Your task to perform on an android device: turn off notifications settings in the gmail app Image 0: 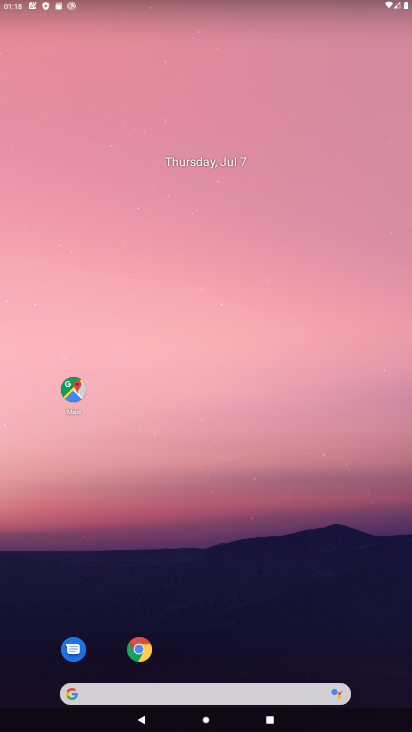
Step 0: drag from (290, 598) to (218, 44)
Your task to perform on an android device: turn off notifications settings in the gmail app Image 1: 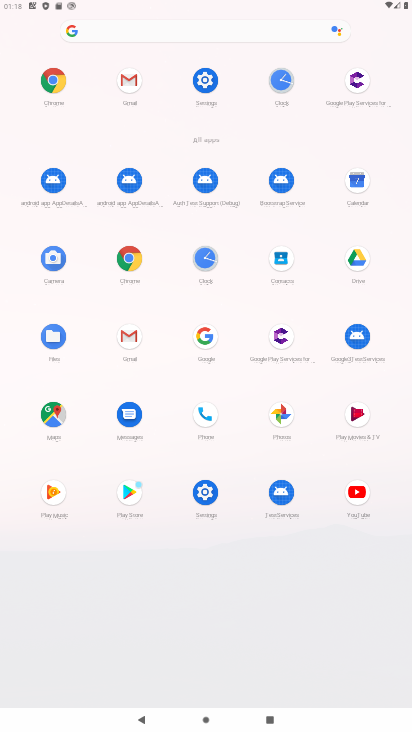
Step 1: click (127, 80)
Your task to perform on an android device: turn off notifications settings in the gmail app Image 2: 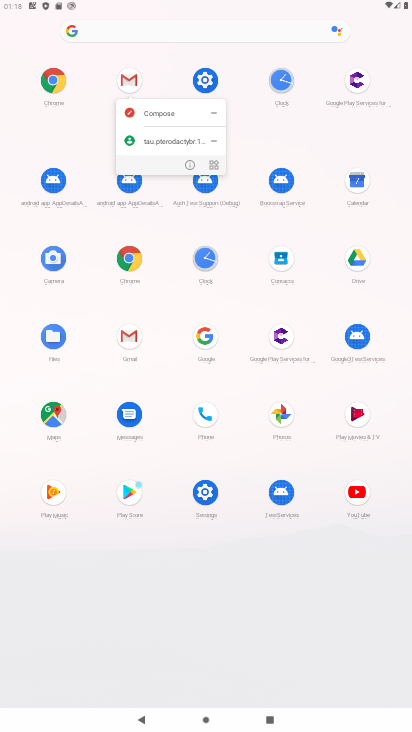
Step 2: click (188, 165)
Your task to perform on an android device: turn off notifications settings in the gmail app Image 3: 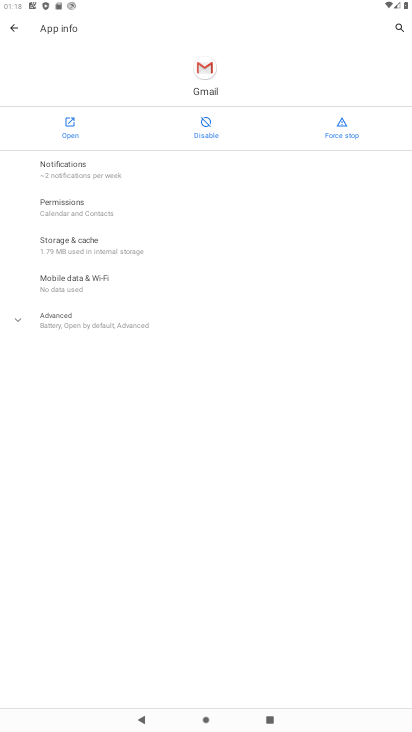
Step 3: click (121, 161)
Your task to perform on an android device: turn off notifications settings in the gmail app Image 4: 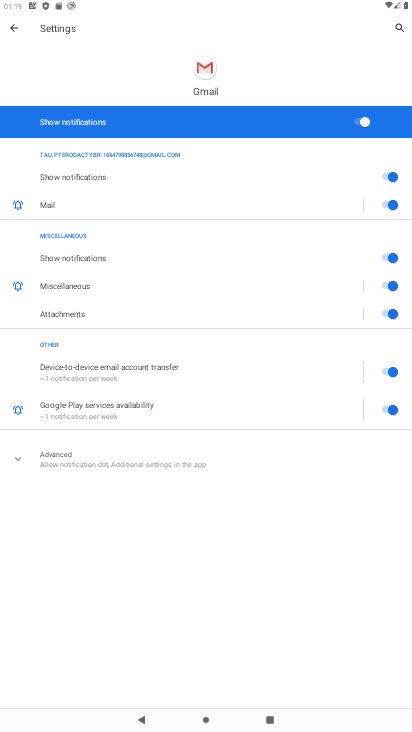
Step 4: click (369, 130)
Your task to perform on an android device: turn off notifications settings in the gmail app Image 5: 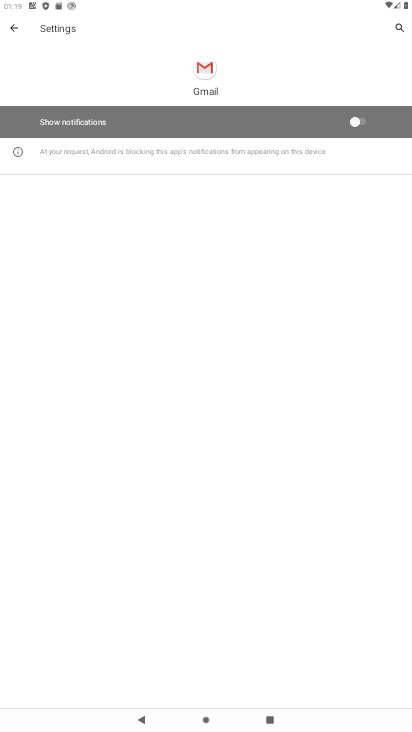
Step 5: task complete